Your task to perform on an android device: all mails in gmail Image 0: 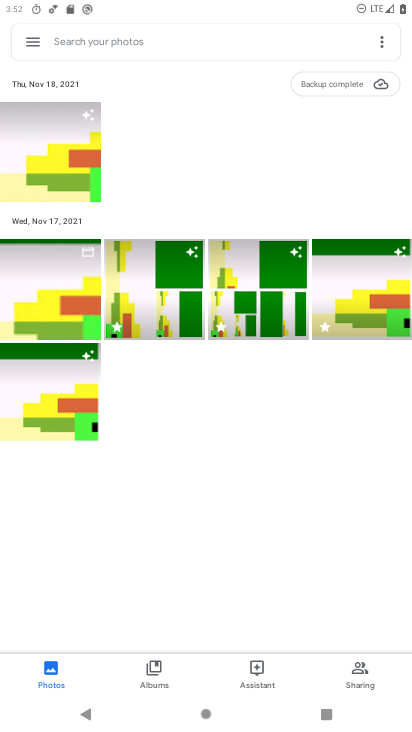
Step 0: press home button
Your task to perform on an android device: all mails in gmail Image 1: 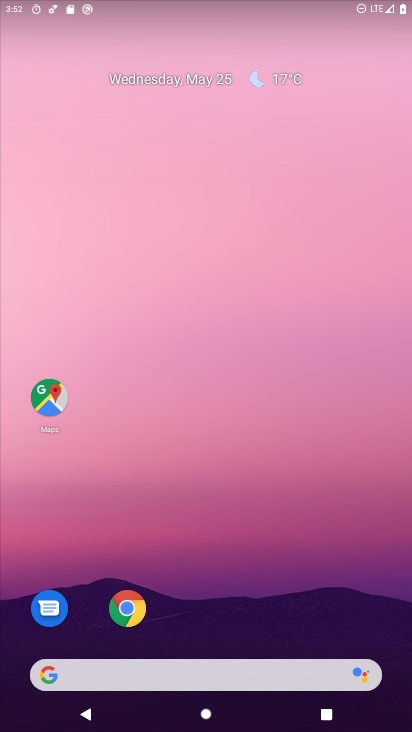
Step 1: drag from (265, 597) to (241, 108)
Your task to perform on an android device: all mails in gmail Image 2: 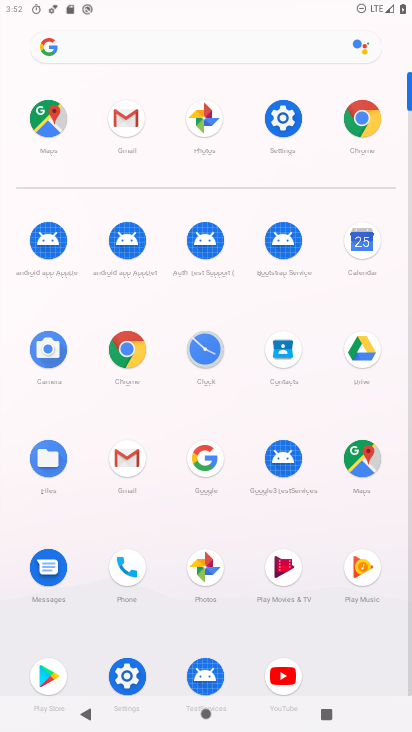
Step 2: click (137, 115)
Your task to perform on an android device: all mails in gmail Image 3: 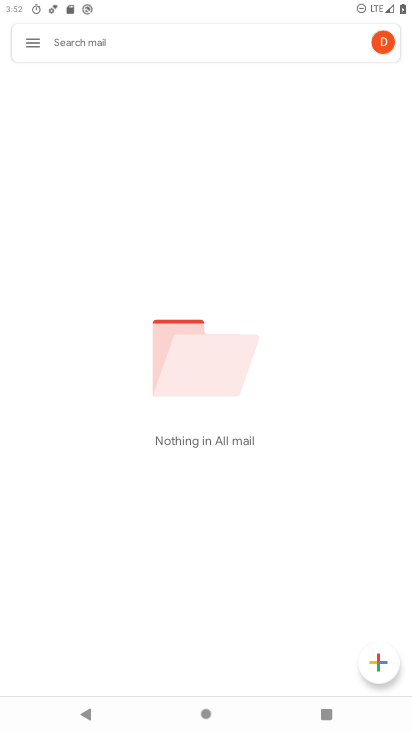
Step 3: click (32, 32)
Your task to perform on an android device: all mails in gmail Image 4: 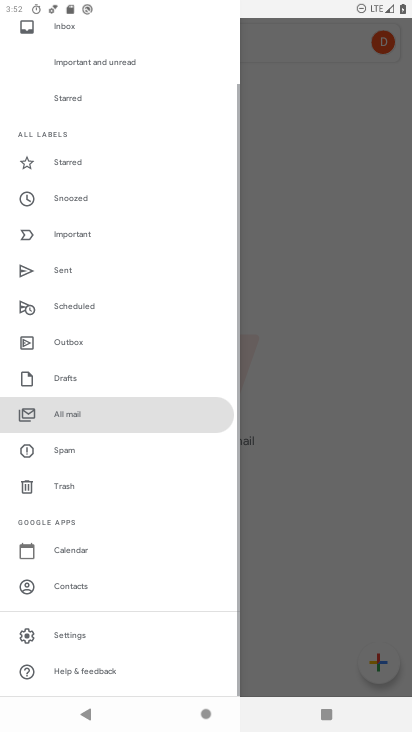
Step 4: click (309, 245)
Your task to perform on an android device: all mails in gmail Image 5: 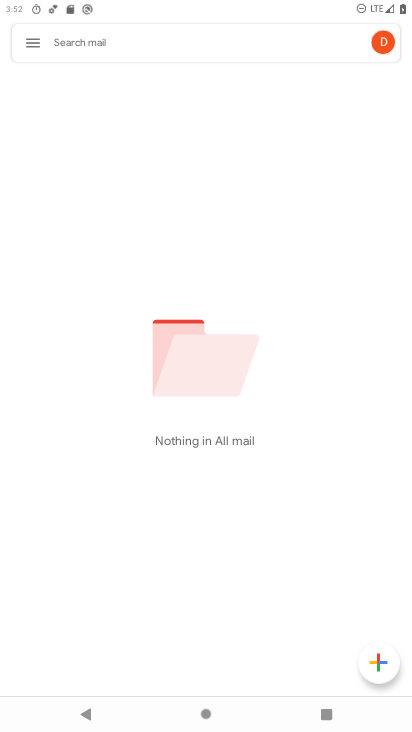
Step 5: task complete